Your task to perform on an android device: find snoozed emails in the gmail app Image 0: 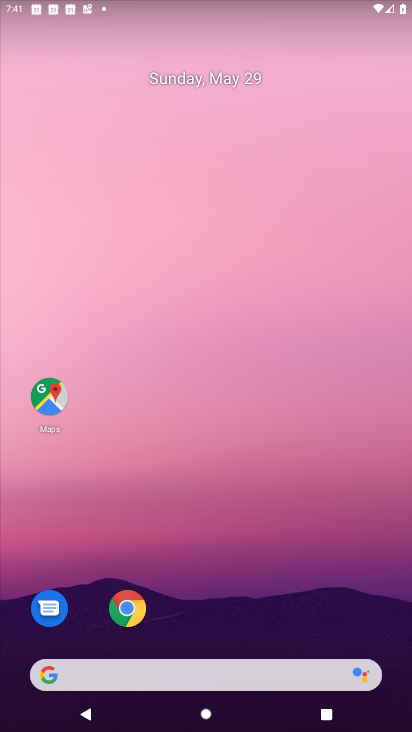
Step 0: drag from (267, 611) to (164, 93)
Your task to perform on an android device: find snoozed emails in the gmail app Image 1: 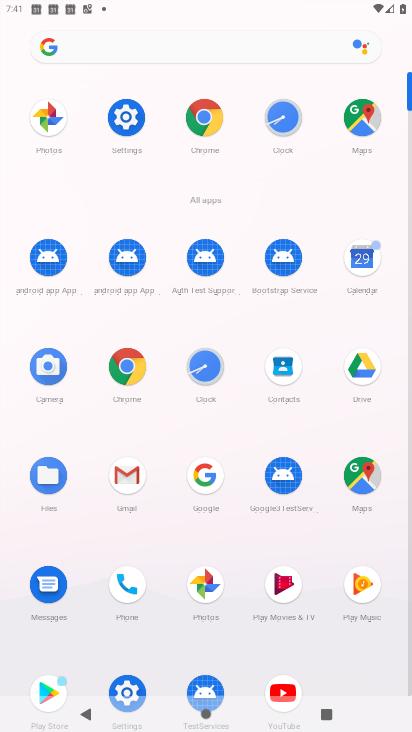
Step 1: click (121, 477)
Your task to perform on an android device: find snoozed emails in the gmail app Image 2: 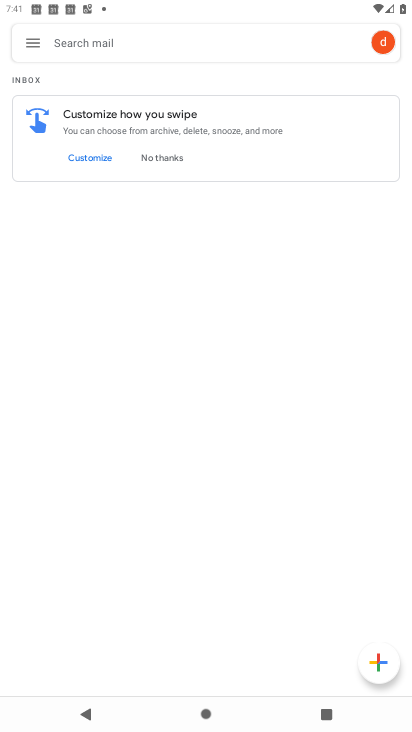
Step 2: click (30, 43)
Your task to perform on an android device: find snoozed emails in the gmail app Image 3: 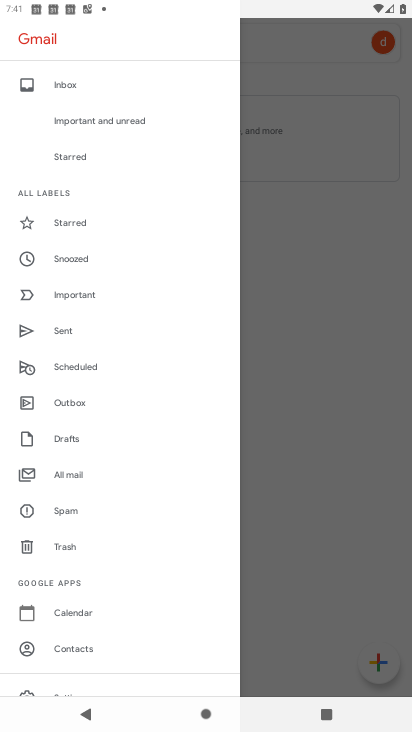
Step 3: click (72, 260)
Your task to perform on an android device: find snoozed emails in the gmail app Image 4: 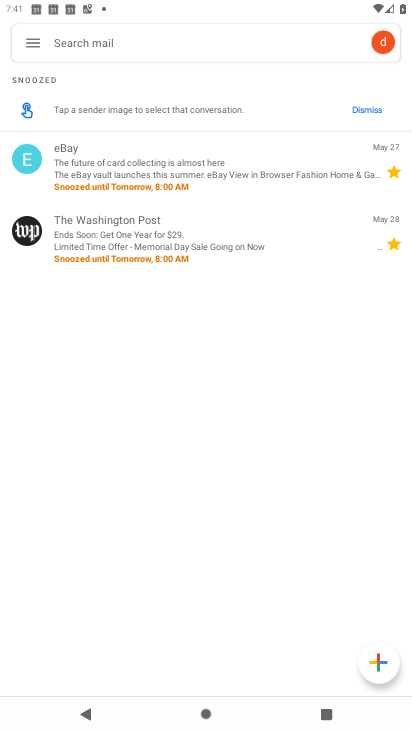
Step 4: task complete